Your task to perform on an android device: open device folders in google photos Image 0: 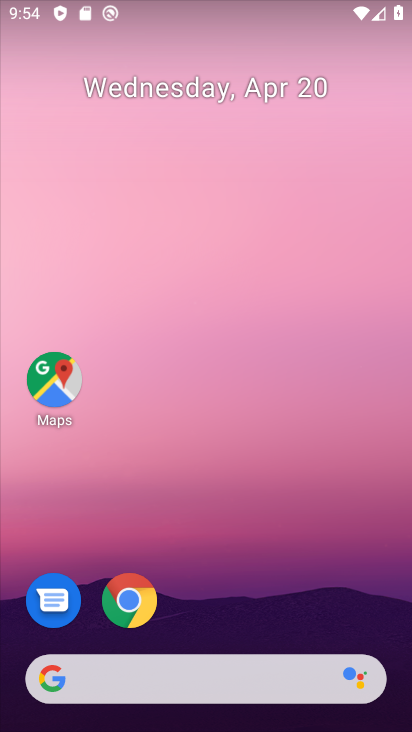
Step 0: drag from (238, 610) to (208, 249)
Your task to perform on an android device: open device folders in google photos Image 1: 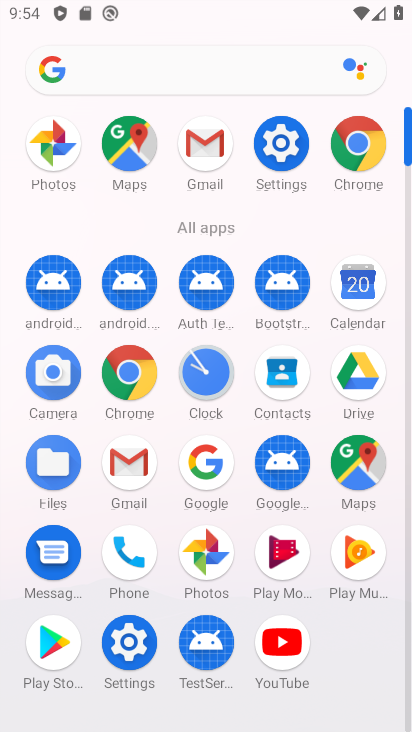
Step 1: click (206, 554)
Your task to perform on an android device: open device folders in google photos Image 2: 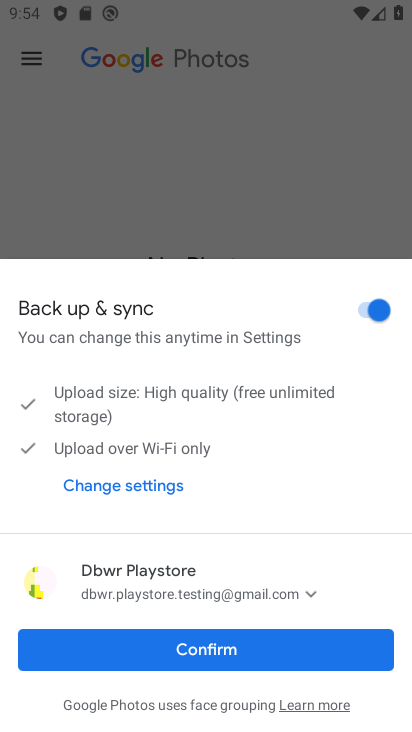
Step 2: click (225, 647)
Your task to perform on an android device: open device folders in google photos Image 3: 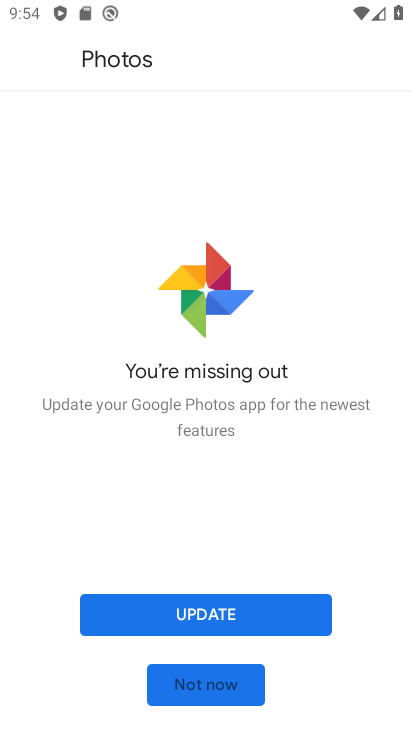
Step 3: click (213, 697)
Your task to perform on an android device: open device folders in google photos Image 4: 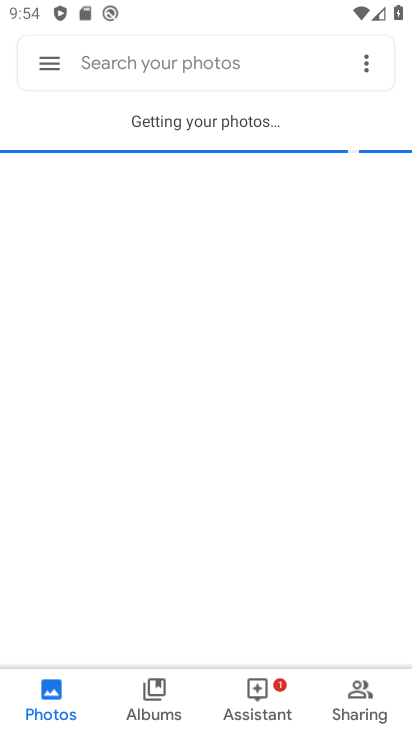
Step 4: click (146, 697)
Your task to perform on an android device: open device folders in google photos Image 5: 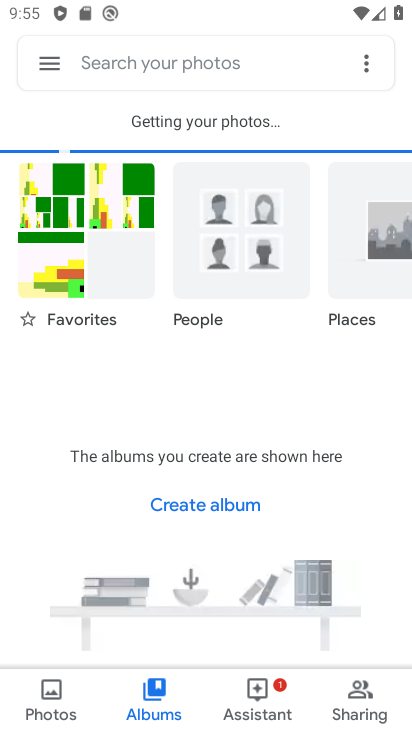
Step 5: click (54, 210)
Your task to perform on an android device: open device folders in google photos Image 6: 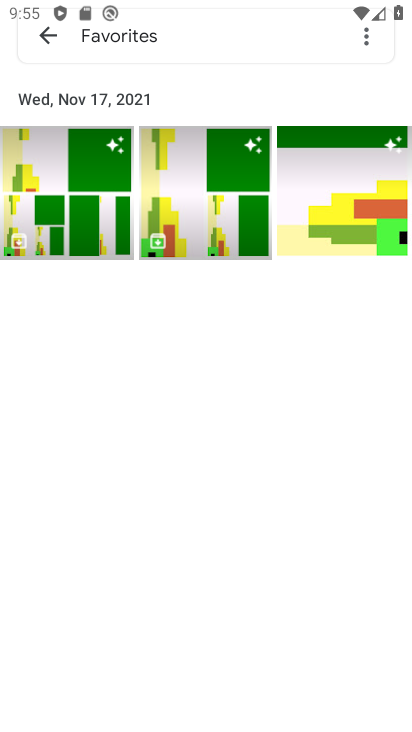
Step 6: click (67, 196)
Your task to perform on an android device: open device folders in google photos Image 7: 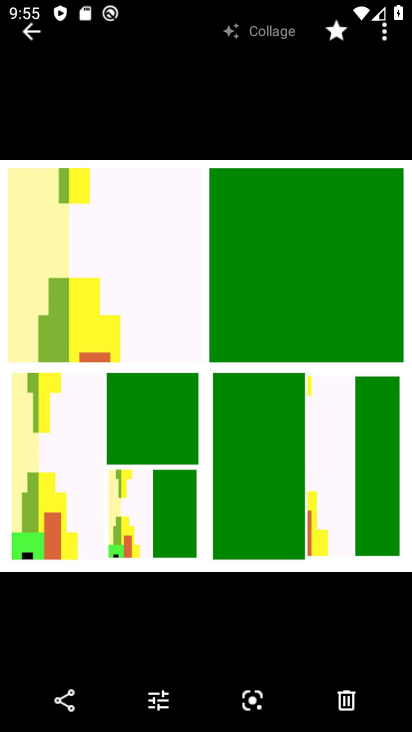
Step 7: task complete